Your task to perform on an android device: toggle location history Image 0: 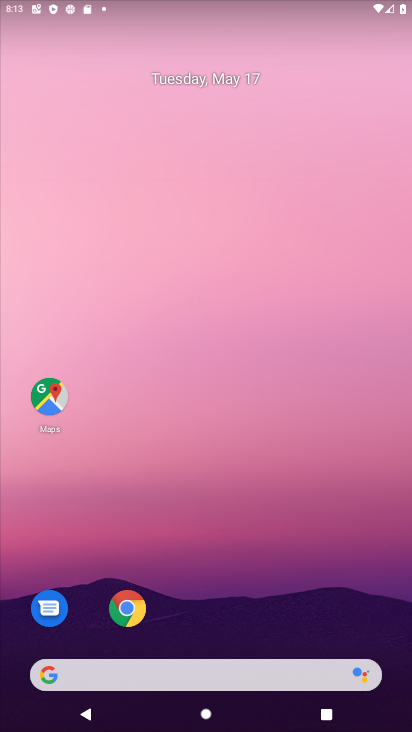
Step 0: drag from (238, 605) to (265, 292)
Your task to perform on an android device: toggle location history Image 1: 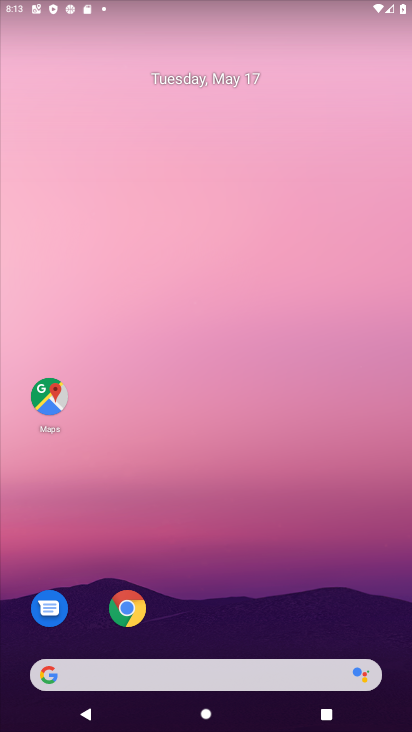
Step 1: drag from (211, 639) to (254, 251)
Your task to perform on an android device: toggle location history Image 2: 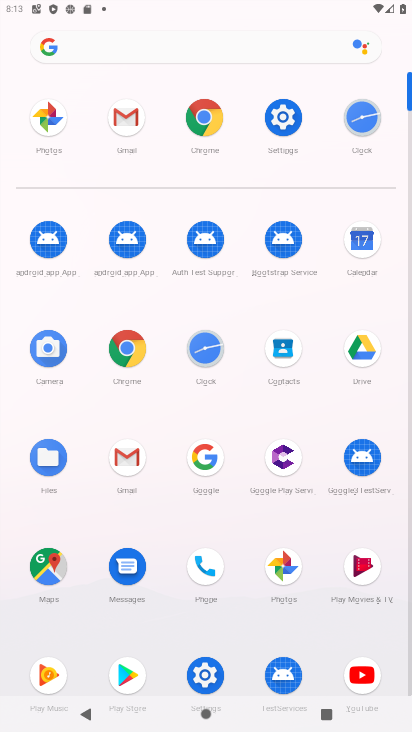
Step 2: click (289, 111)
Your task to perform on an android device: toggle location history Image 3: 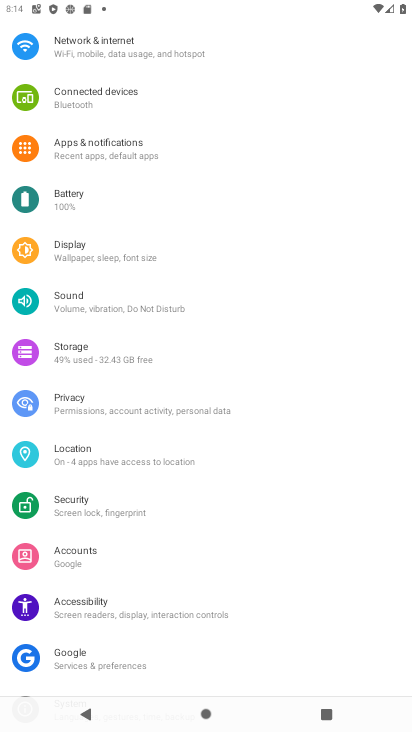
Step 3: click (136, 468)
Your task to perform on an android device: toggle location history Image 4: 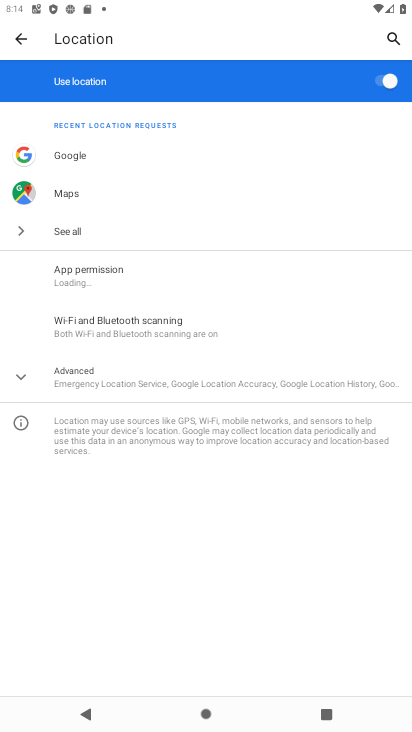
Step 4: click (96, 371)
Your task to perform on an android device: toggle location history Image 5: 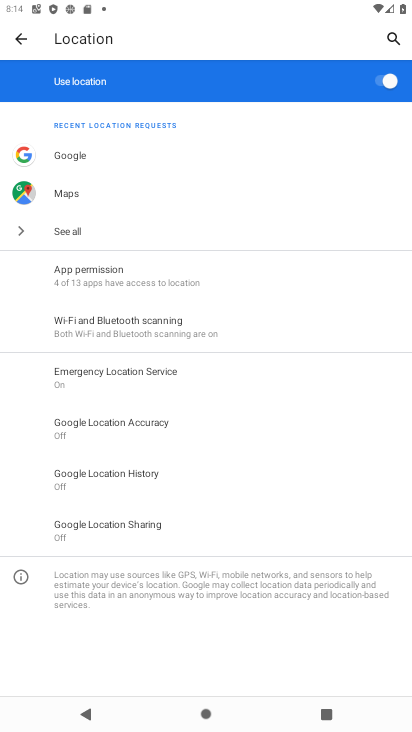
Step 5: click (137, 460)
Your task to perform on an android device: toggle location history Image 6: 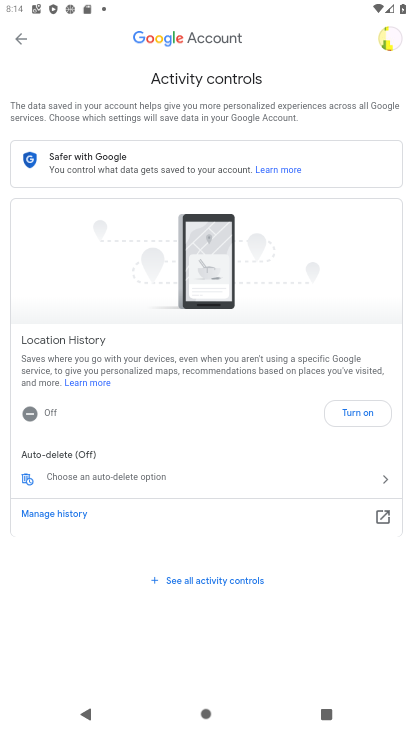
Step 6: click (361, 416)
Your task to perform on an android device: toggle location history Image 7: 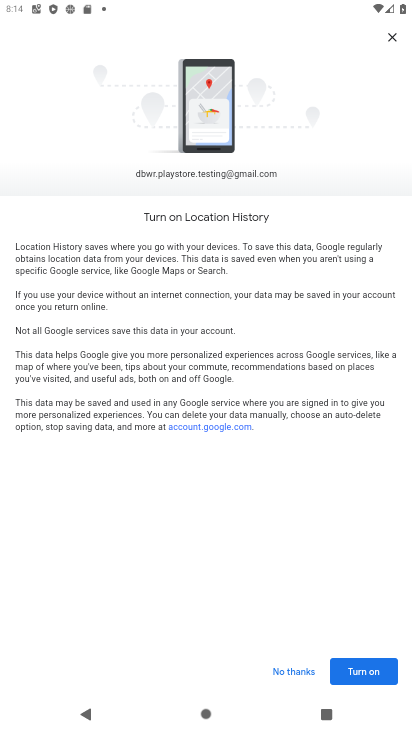
Step 7: click (360, 678)
Your task to perform on an android device: toggle location history Image 8: 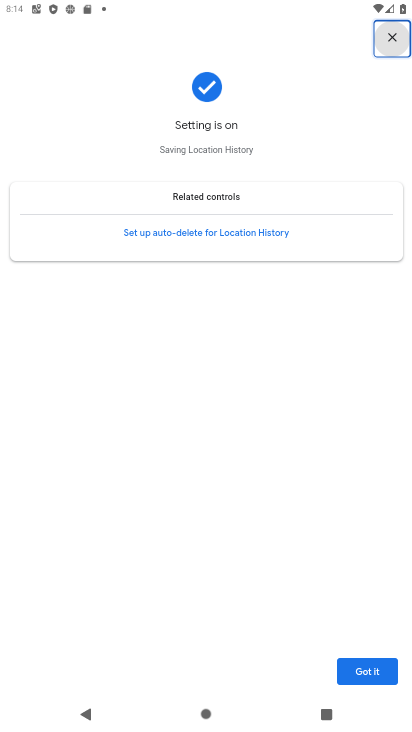
Step 8: click (360, 678)
Your task to perform on an android device: toggle location history Image 9: 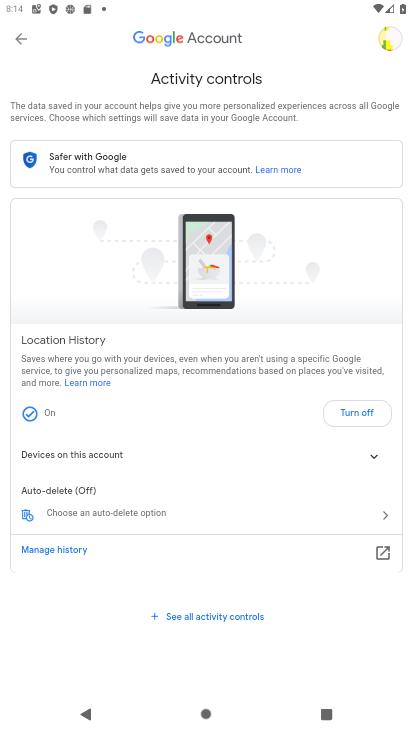
Step 9: task complete